Your task to perform on an android device: turn on bluetooth scan Image 0: 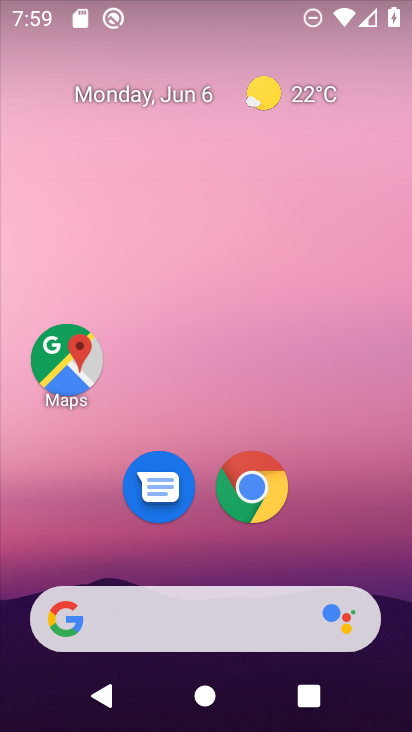
Step 0: drag from (392, 625) to (216, 87)
Your task to perform on an android device: turn on bluetooth scan Image 1: 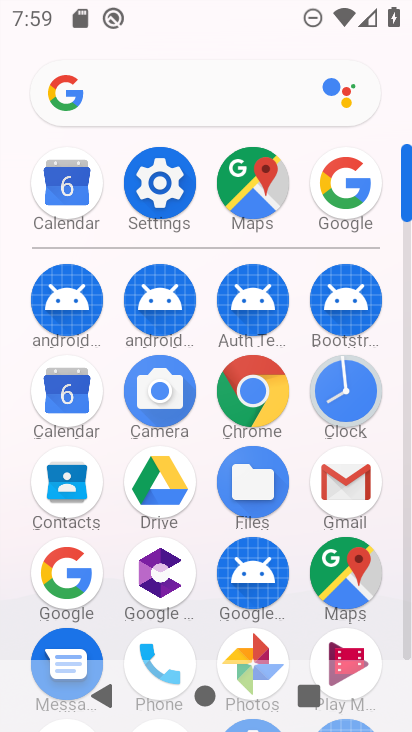
Step 1: click (155, 158)
Your task to perform on an android device: turn on bluetooth scan Image 2: 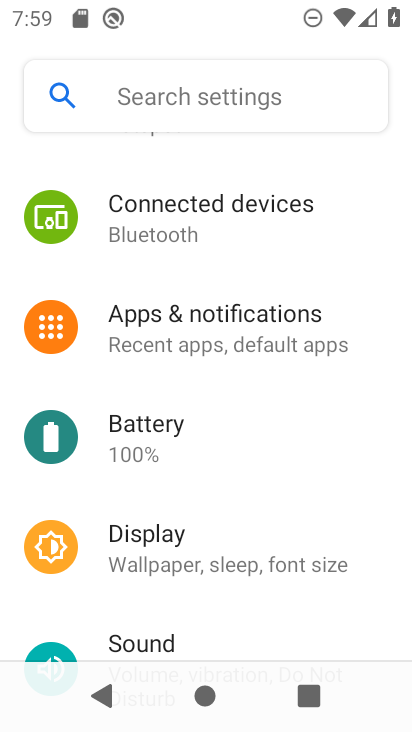
Step 2: drag from (201, 284) to (194, 620)
Your task to perform on an android device: turn on bluetooth scan Image 3: 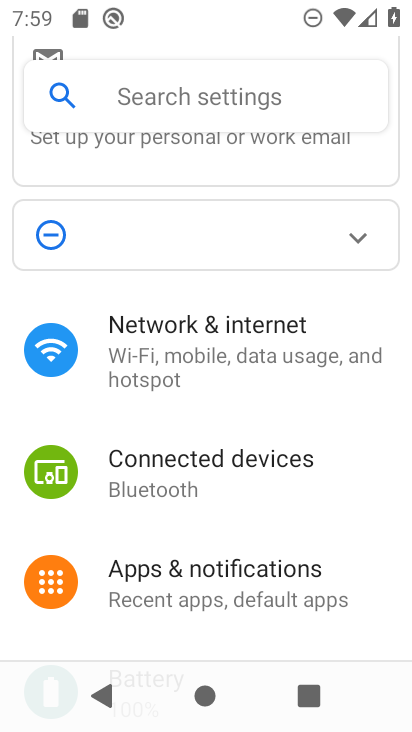
Step 3: drag from (186, 575) to (203, 187)
Your task to perform on an android device: turn on bluetooth scan Image 4: 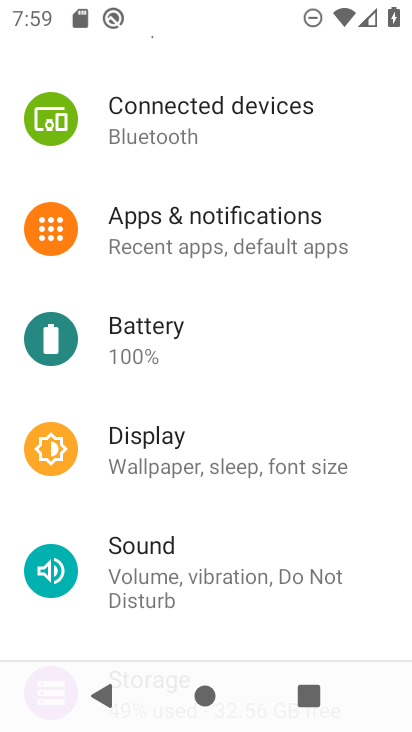
Step 4: drag from (183, 558) to (217, 156)
Your task to perform on an android device: turn on bluetooth scan Image 5: 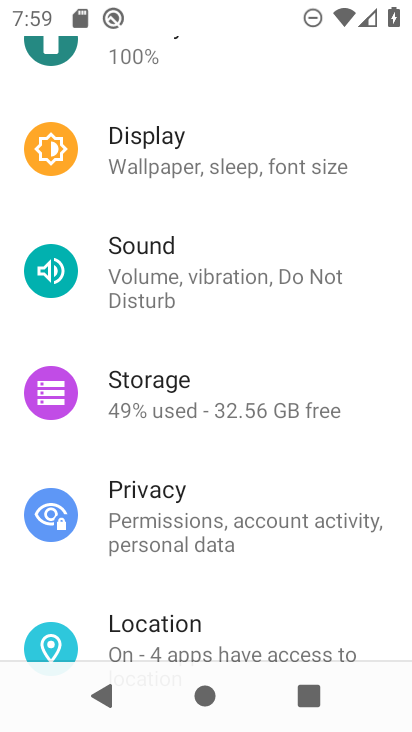
Step 5: click (176, 642)
Your task to perform on an android device: turn on bluetooth scan Image 6: 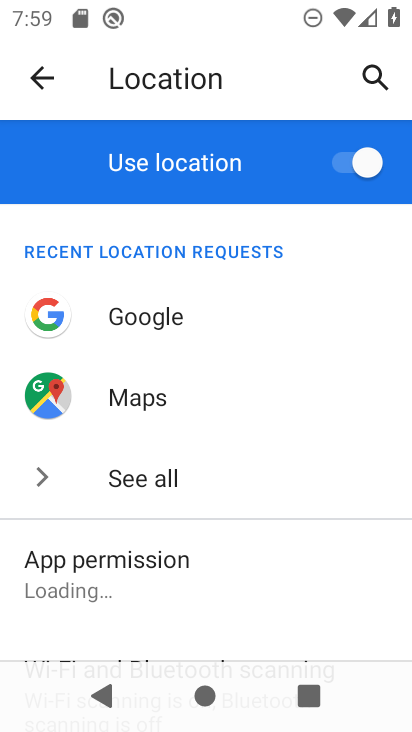
Step 6: click (200, 658)
Your task to perform on an android device: turn on bluetooth scan Image 7: 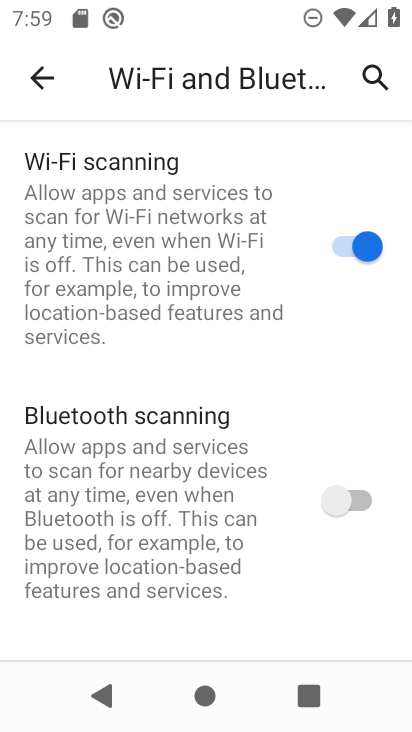
Step 7: click (330, 491)
Your task to perform on an android device: turn on bluetooth scan Image 8: 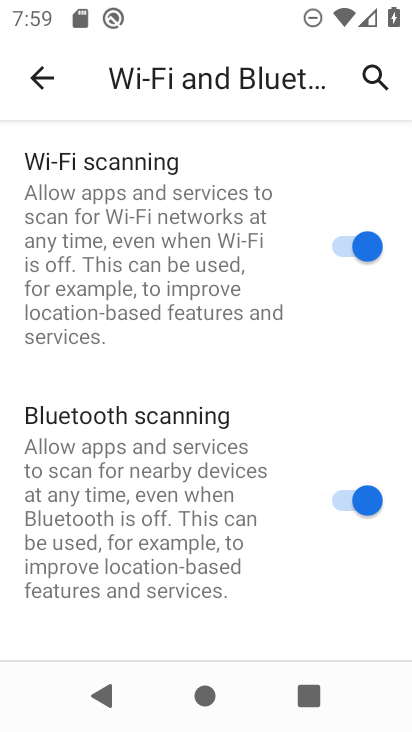
Step 8: task complete